Your task to perform on an android device: Is it going to rain today? Image 0: 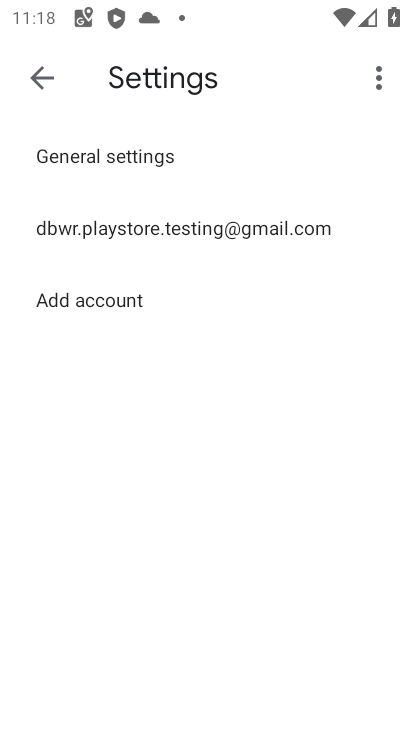
Step 0: click (53, 63)
Your task to perform on an android device: Is it going to rain today? Image 1: 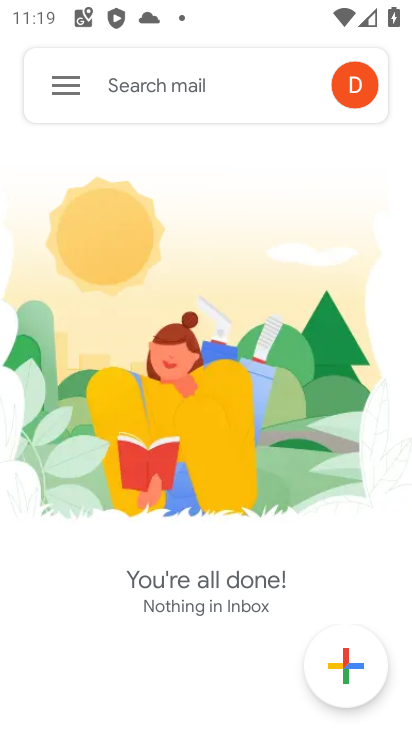
Step 1: press home button
Your task to perform on an android device: Is it going to rain today? Image 2: 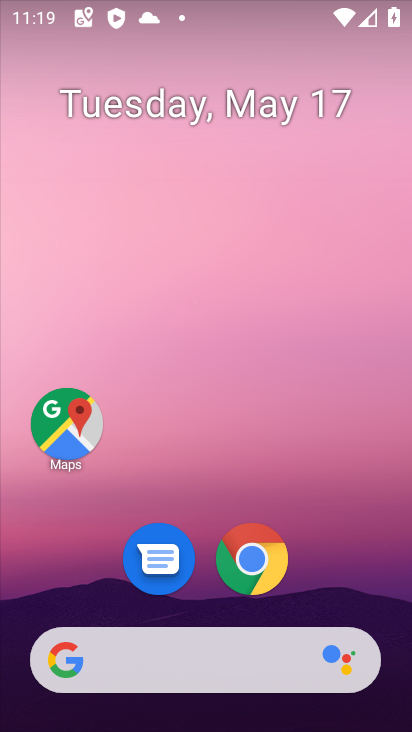
Step 2: click (243, 671)
Your task to perform on an android device: Is it going to rain today? Image 3: 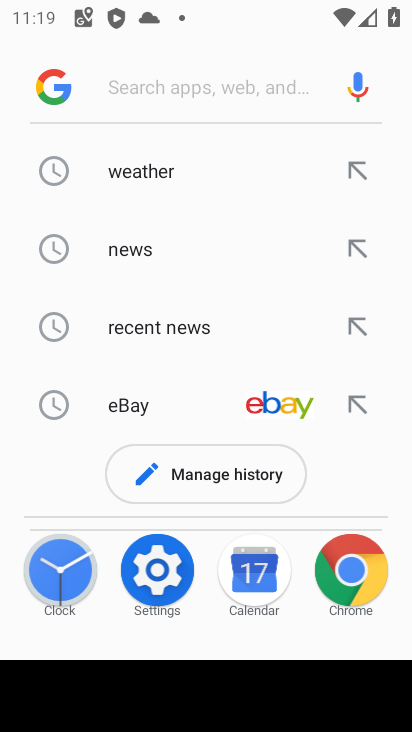
Step 3: type "Is it going to rain today?"
Your task to perform on an android device: Is it going to rain today? Image 4: 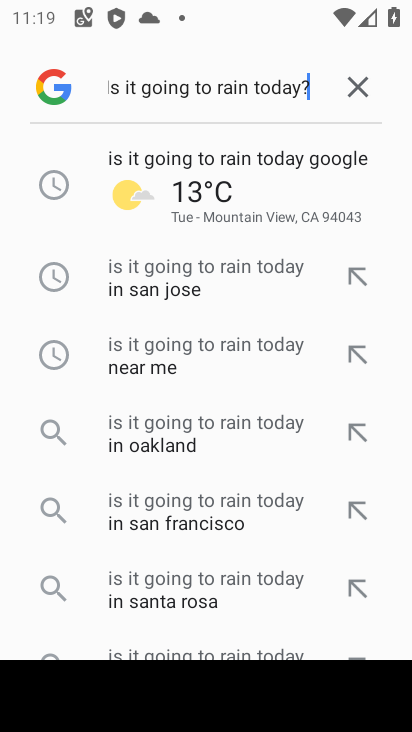
Step 4: click (293, 183)
Your task to perform on an android device: Is it going to rain today? Image 5: 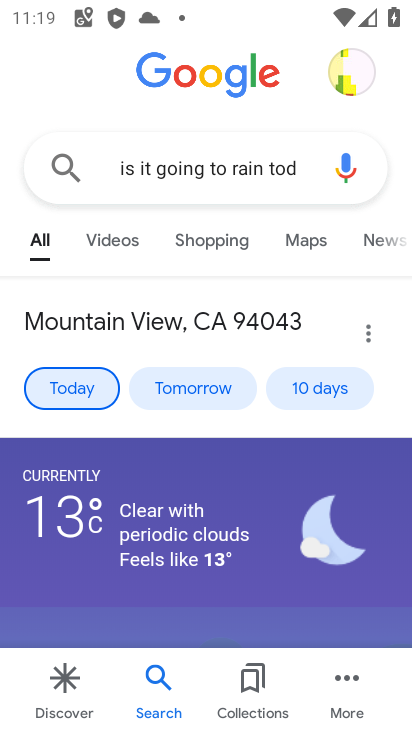
Step 5: task complete